Your task to perform on an android device: Add usb-c to the cart on target.com, then select checkout. Image 0: 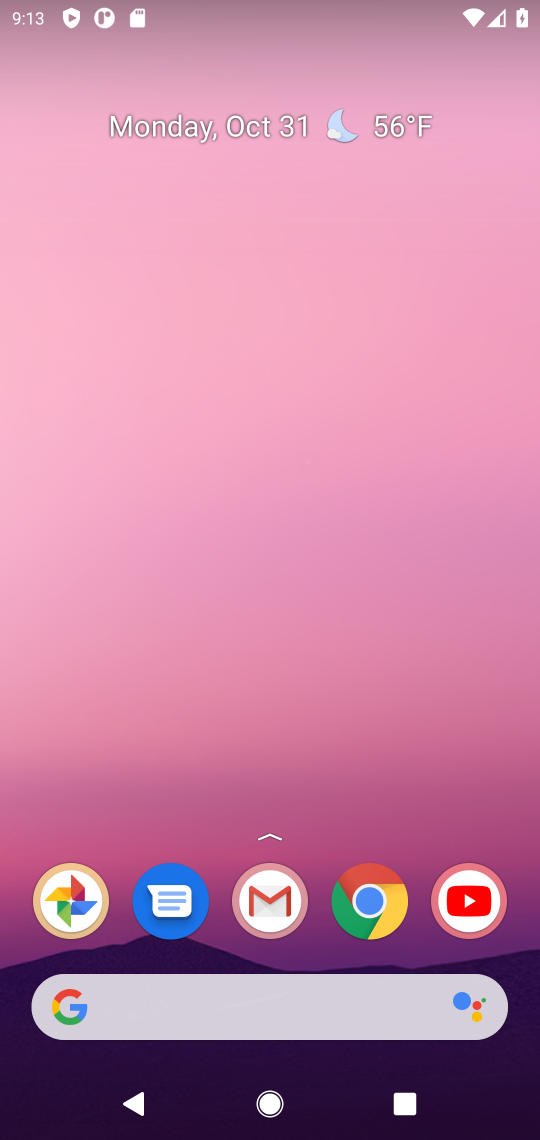
Step 0: drag from (204, 958) to (200, 435)
Your task to perform on an android device: Add usb-c to the cart on target.com, then select checkout. Image 1: 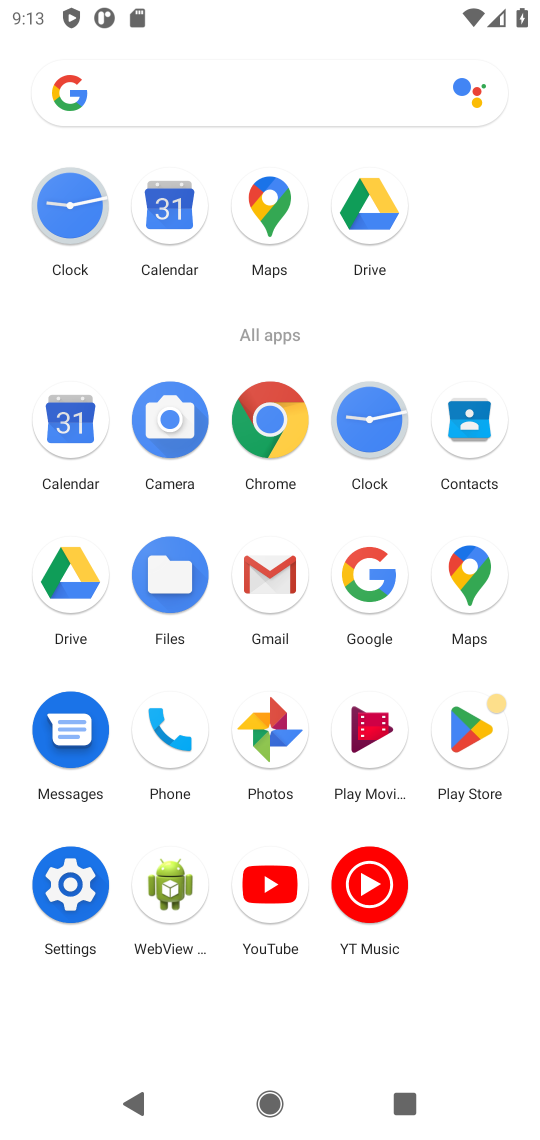
Step 1: click (360, 573)
Your task to perform on an android device: Add usb-c to the cart on target.com, then select checkout. Image 2: 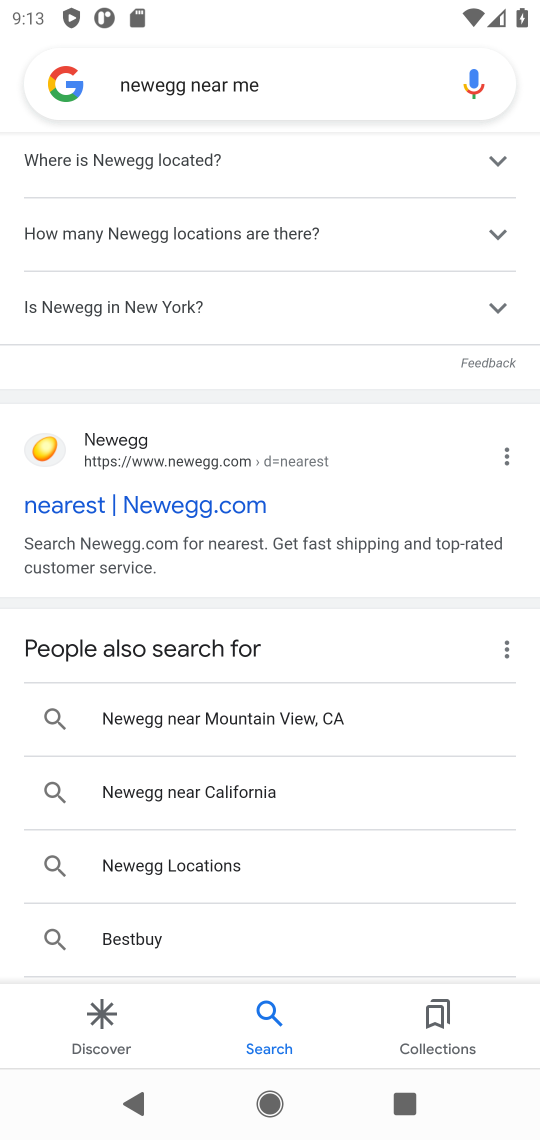
Step 2: click (308, 61)
Your task to perform on an android device: Add usb-c to the cart on target.com, then select checkout. Image 3: 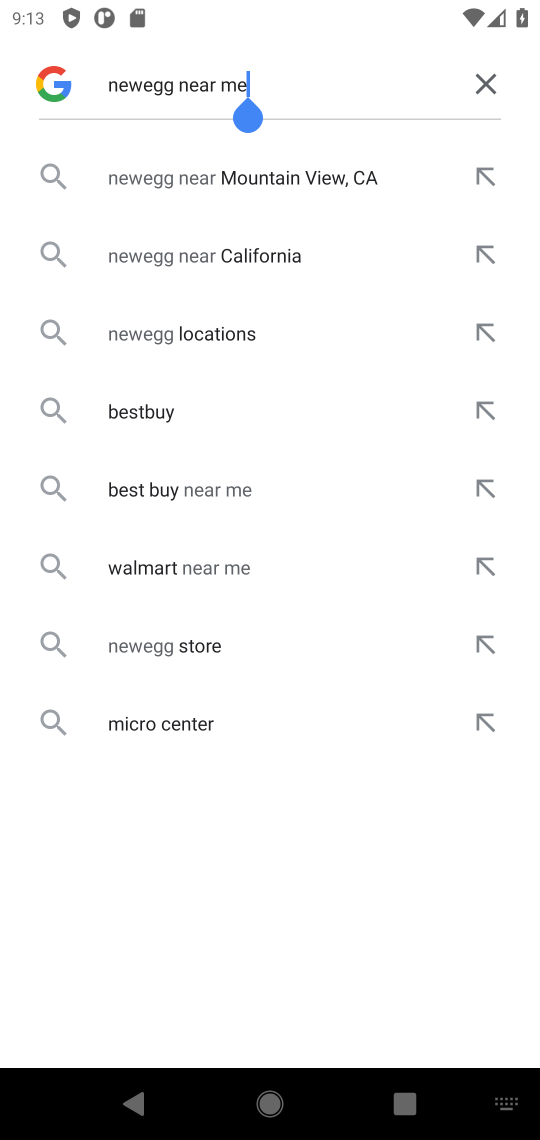
Step 3: click (494, 88)
Your task to perform on an android device: Add usb-c to the cart on target.com, then select checkout. Image 4: 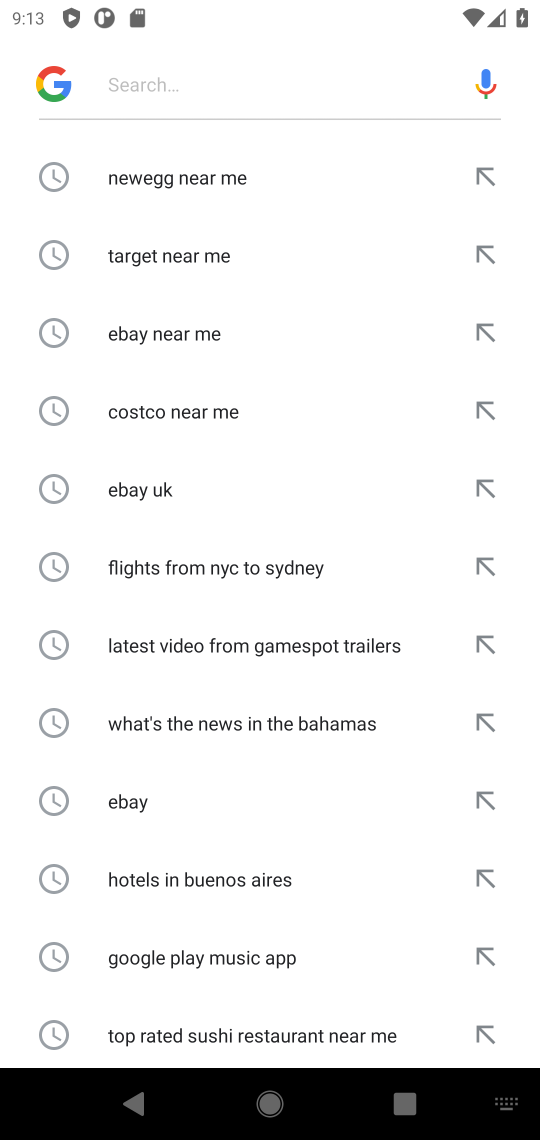
Step 4: click (189, 266)
Your task to perform on an android device: Add usb-c to the cart on target.com, then select checkout. Image 5: 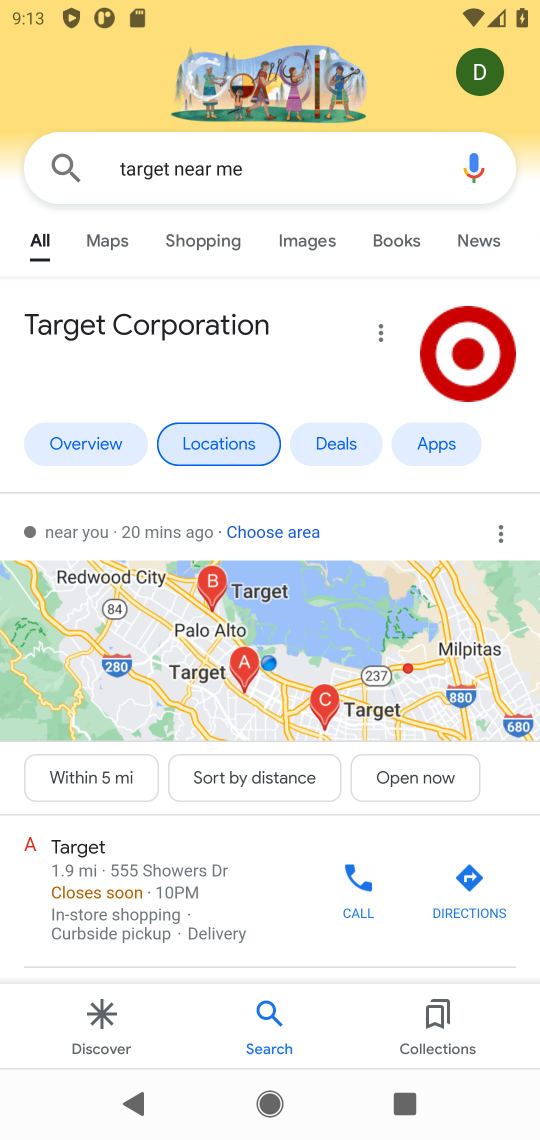
Step 5: drag from (172, 875) to (201, 350)
Your task to perform on an android device: Add usb-c to the cart on target.com, then select checkout. Image 6: 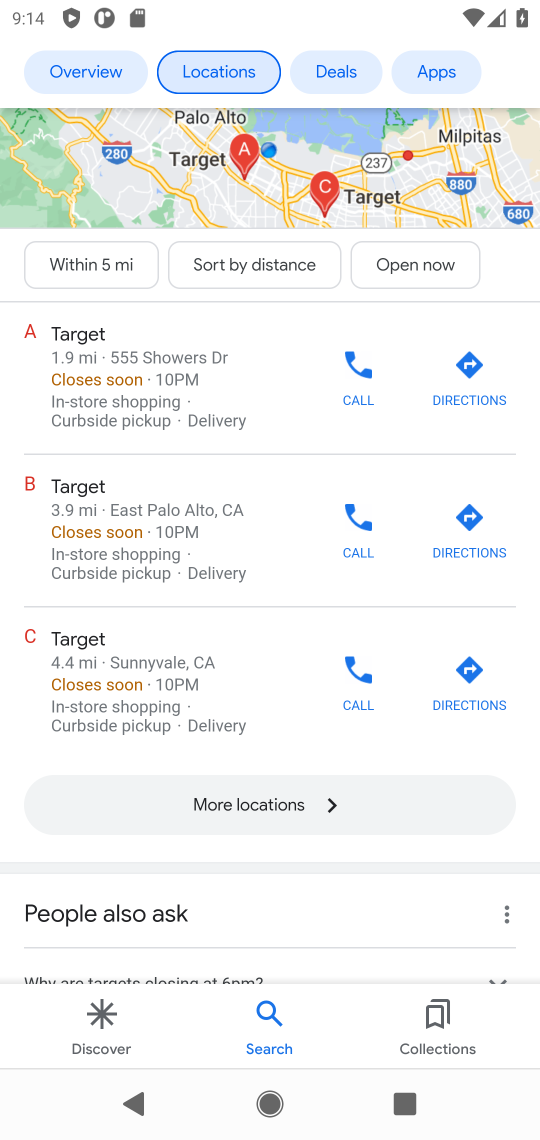
Step 6: drag from (184, 896) to (255, 245)
Your task to perform on an android device: Add usb-c to the cart on target.com, then select checkout. Image 7: 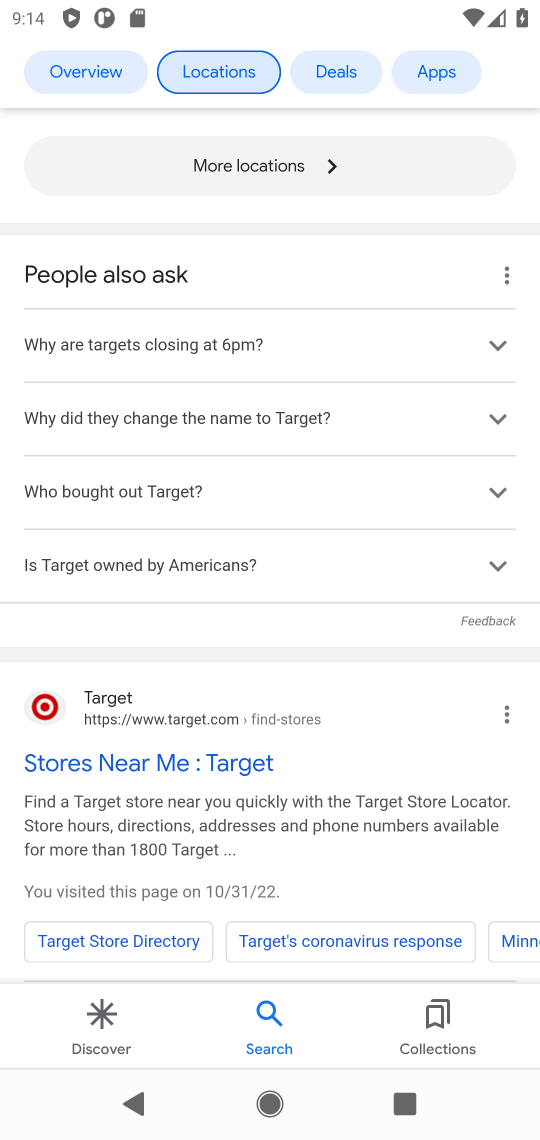
Step 7: click (44, 700)
Your task to perform on an android device: Add usb-c to the cart on target.com, then select checkout. Image 8: 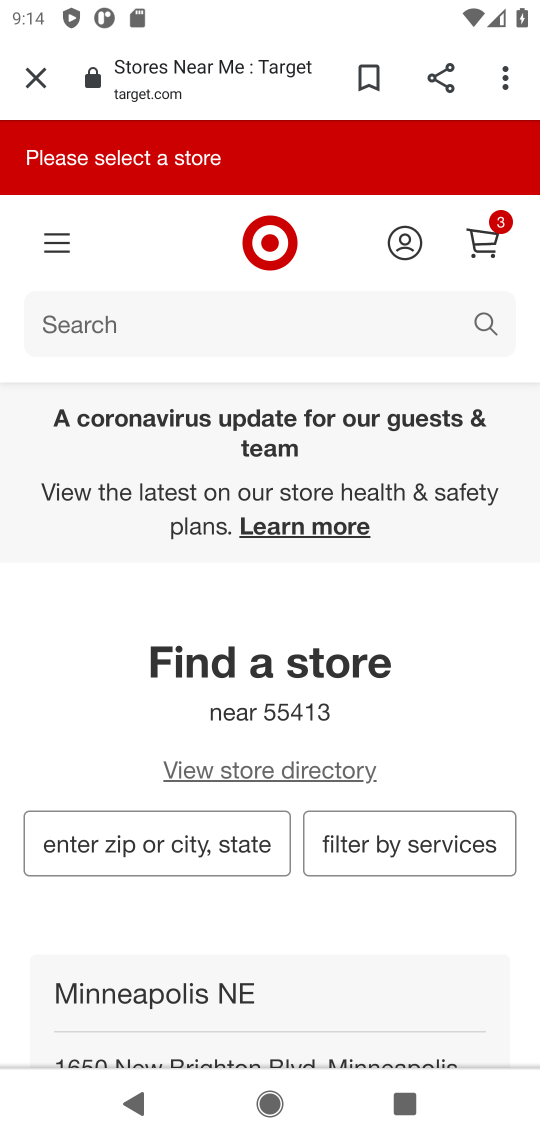
Step 8: click (161, 318)
Your task to perform on an android device: Add usb-c to the cart on target.com, then select checkout. Image 9: 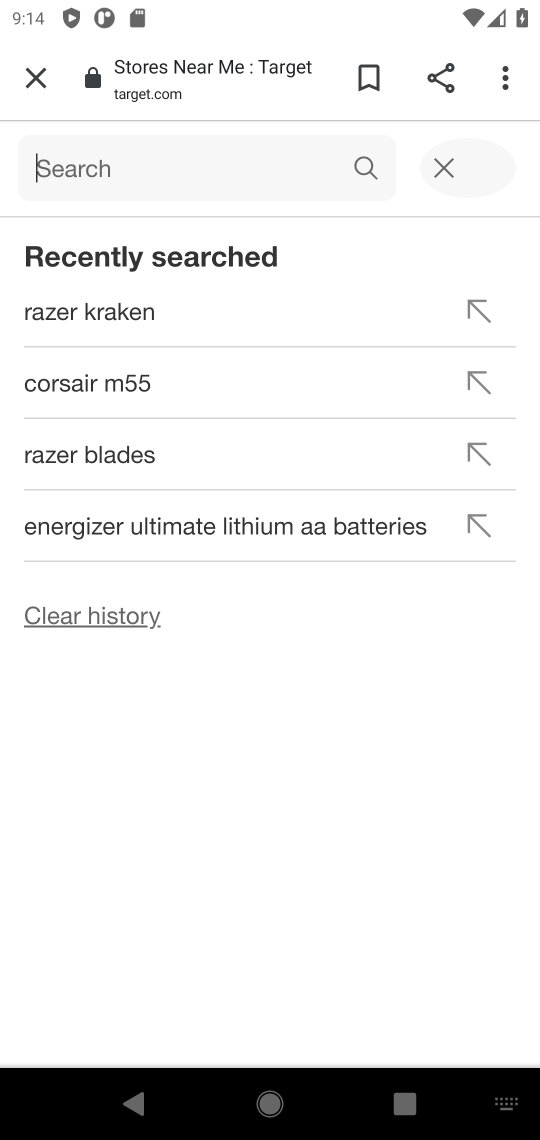
Step 9: type "usb-c "
Your task to perform on an android device: Add usb-c to the cart on target.com, then select checkout. Image 10: 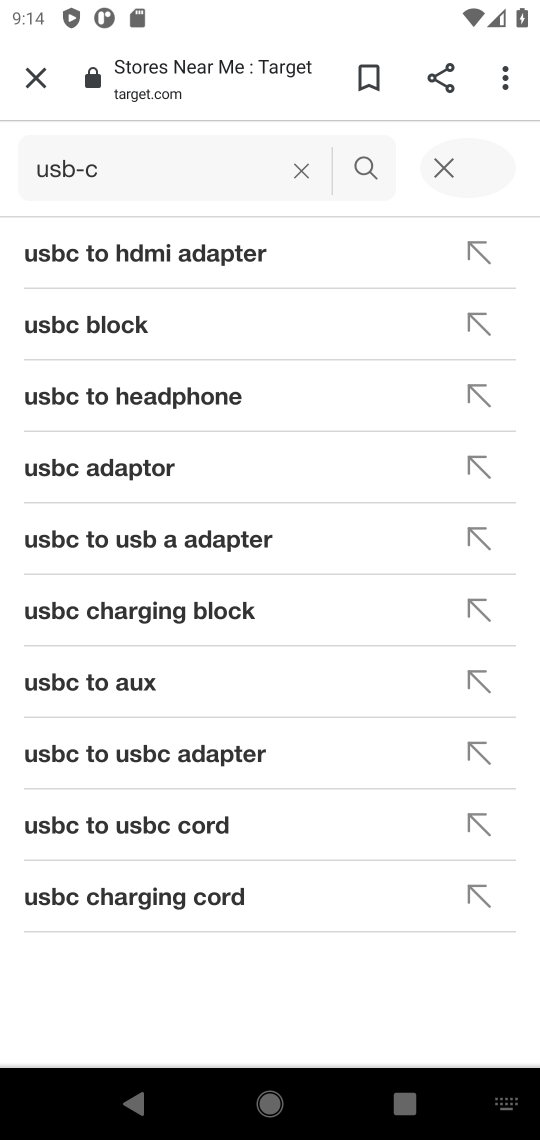
Step 10: click (159, 692)
Your task to perform on an android device: Add usb-c to the cart on target.com, then select checkout. Image 11: 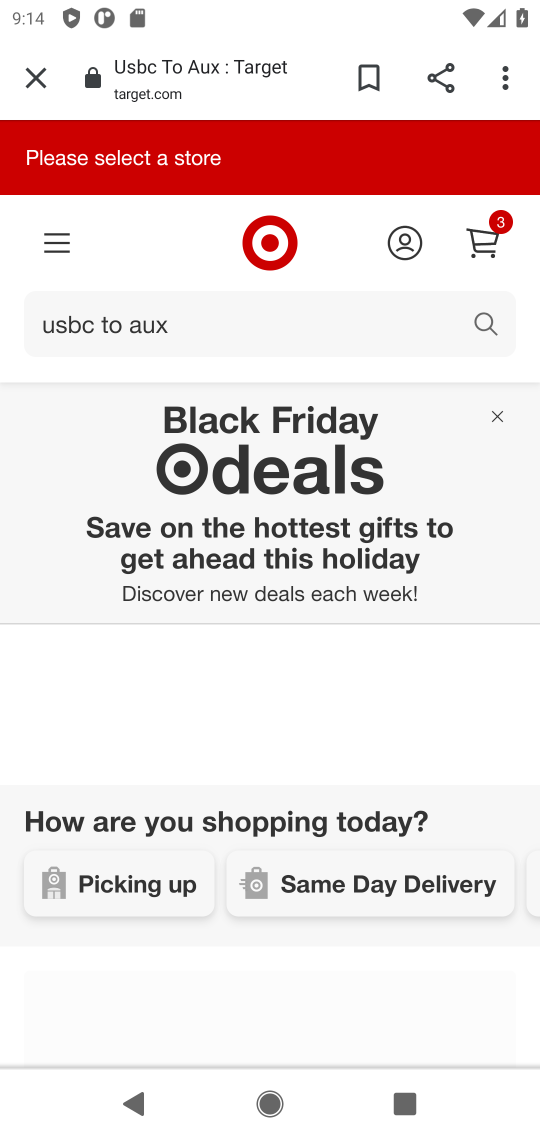
Step 11: drag from (249, 812) to (363, 330)
Your task to perform on an android device: Add usb-c to the cart on target.com, then select checkout. Image 12: 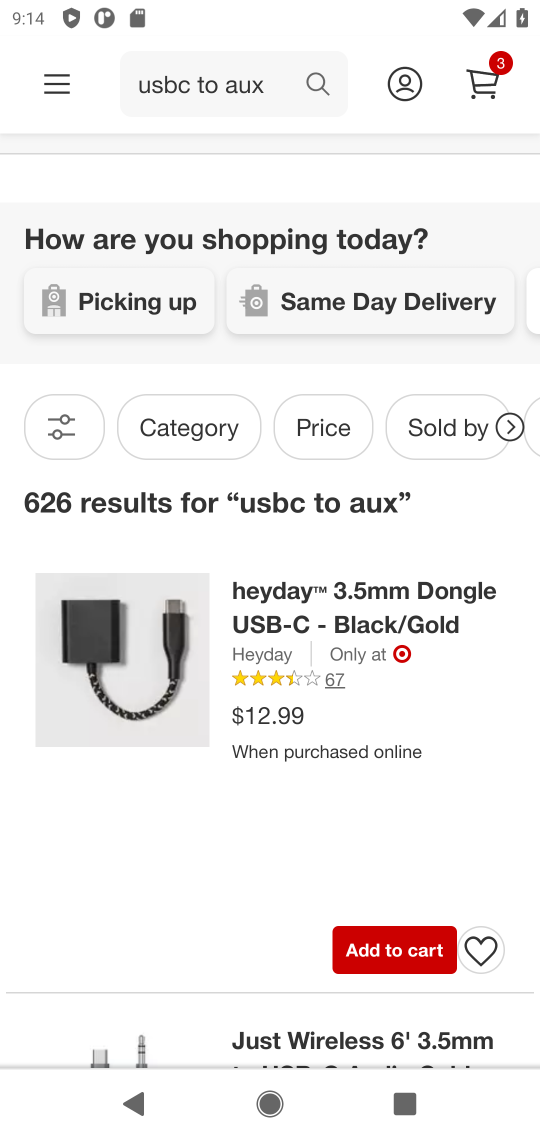
Step 12: click (361, 955)
Your task to perform on an android device: Add usb-c to the cart on target.com, then select checkout. Image 13: 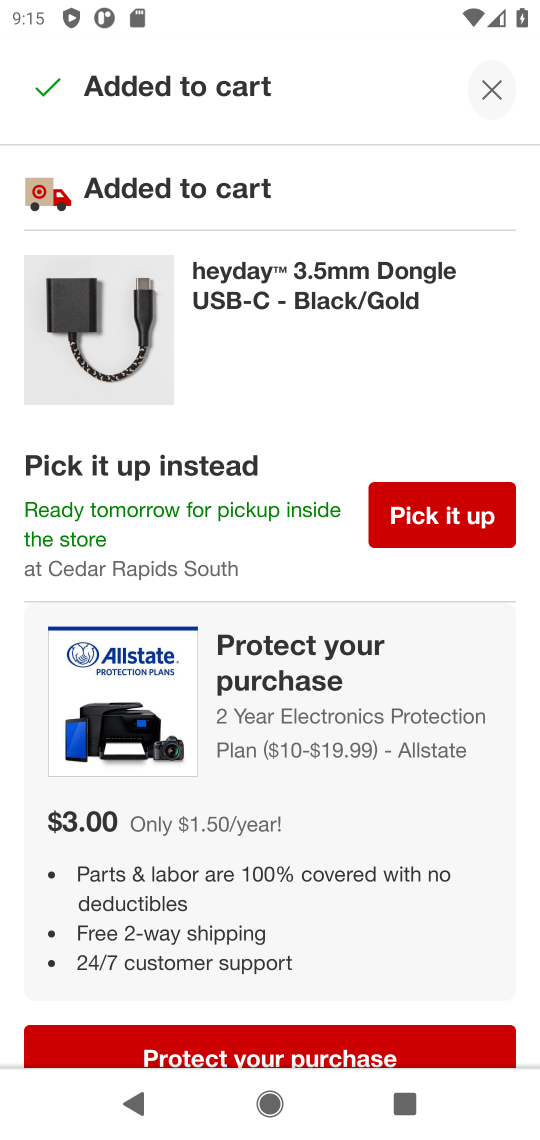
Step 13: task complete